Your task to perform on an android device: Search for sushi restaurants on Maps Image 0: 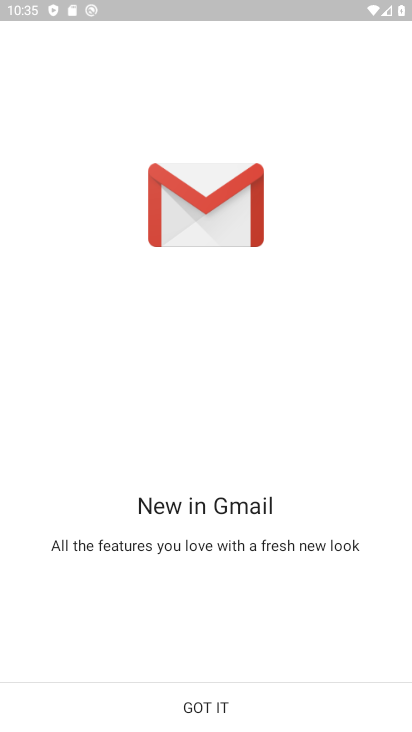
Step 0: click (277, 705)
Your task to perform on an android device: Search for sushi restaurants on Maps Image 1: 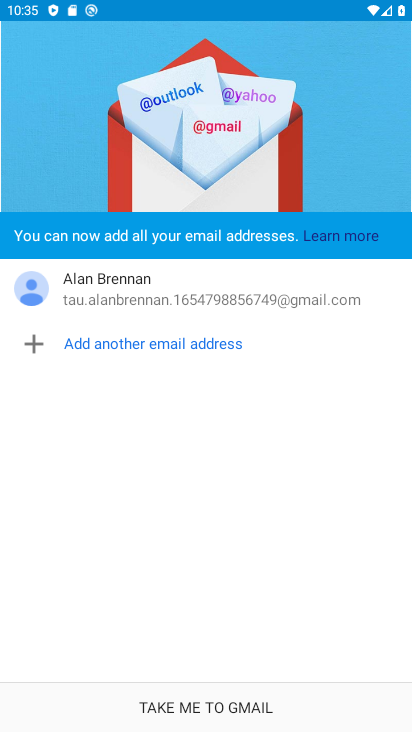
Step 1: press home button
Your task to perform on an android device: Search for sushi restaurants on Maps Image 2: 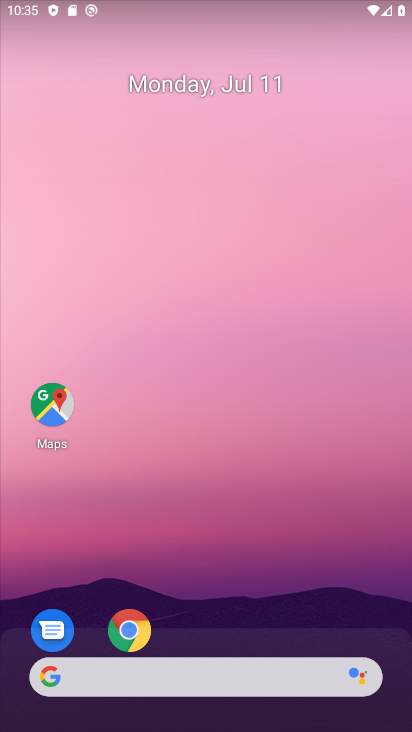
Step 2: drag from (235, 643) to (185, 47)
Your task to perform on an android device: Search for sushi restaurants on Maps Image 3: 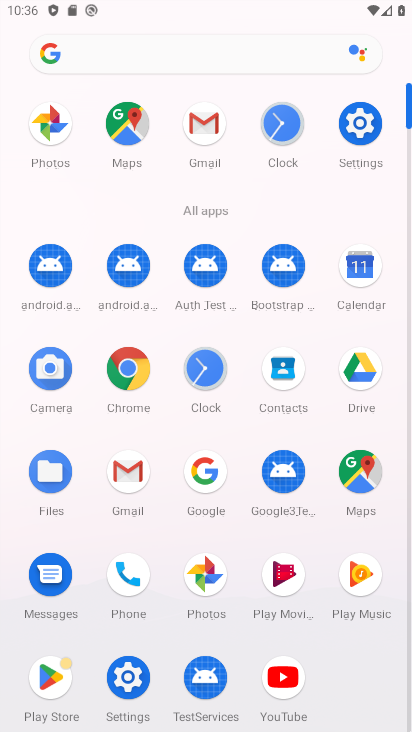
Step 3: click (113, 135)
Your task to perform on an android device: Search for sushi restaurants on Maps Image 4: 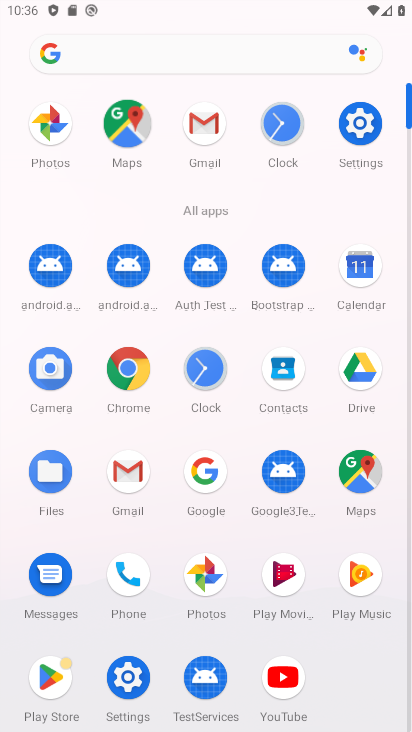
Step 4: click (128, 116)
Your task to perform on an android device: Search for sushi restaurants on Maps Image 5: 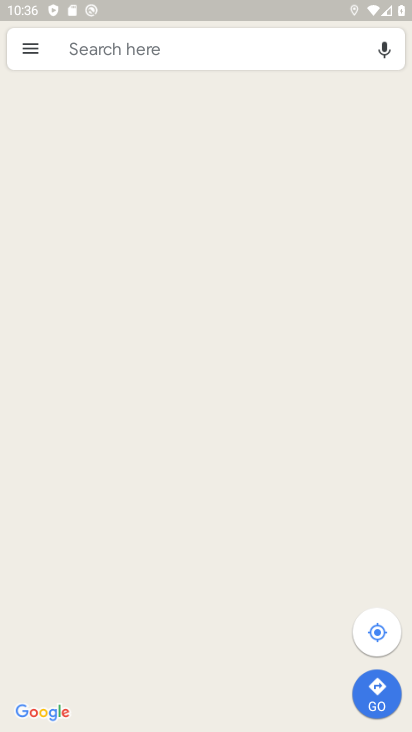
Step 5: click (141, 64)
Your task to perform on an android device: Search for sushi restaurants on Maps Image 6: 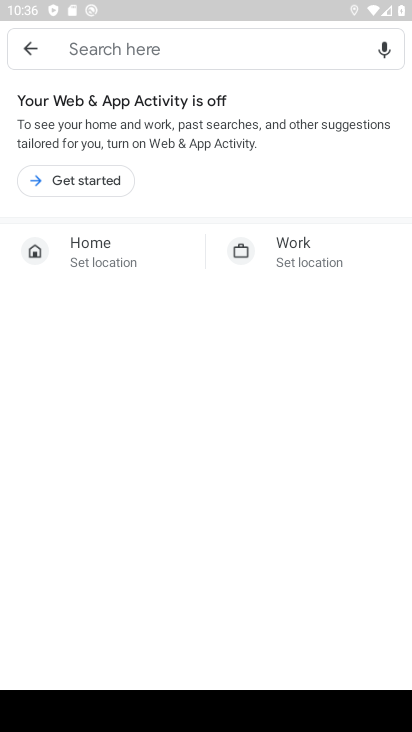
Step 6: type "sushi restaurants"
Your task to perform on an android device: Search for sushi restaurants on Maps Image 7: 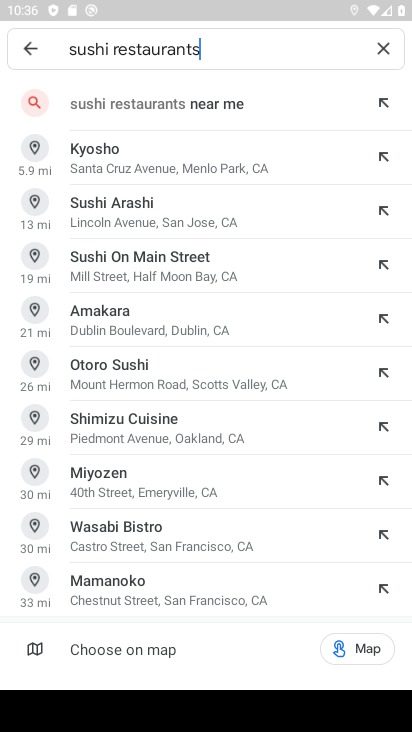
Step 7: click (211, 111)
Your task to perform on an android device: Search for sushi restaurants on Maps Image 8: 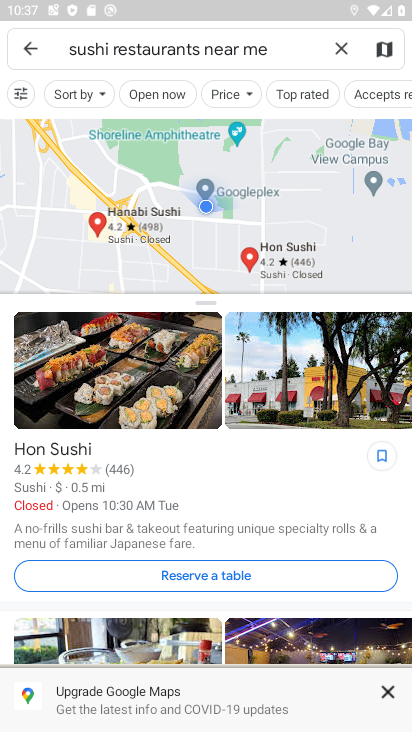
Step 8: task complete